Your task to perform on an android device: install app "Booking.com: Hotels and more" Image 0: 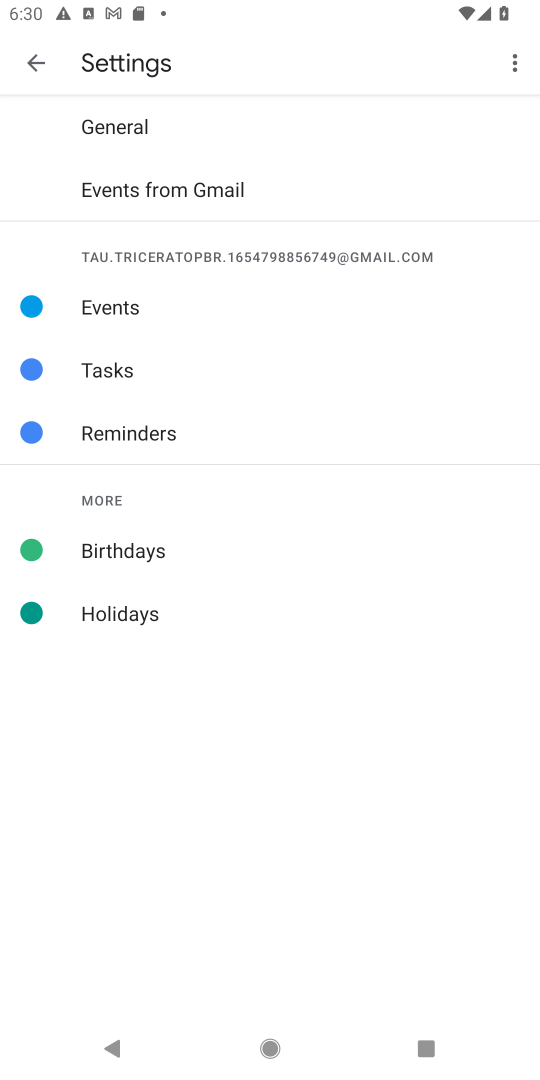
Step 0: press home button
Your task to perform on an android device: install app "Booking.com: Hotels and more" Image 1: 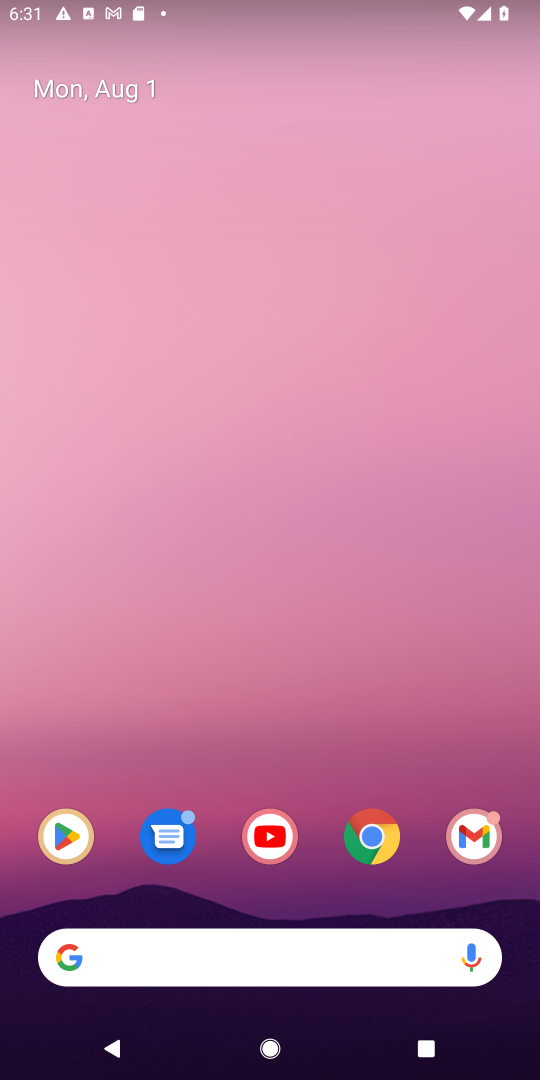
Step 1: click (66, 829)
Your task to perform on an android device: install app "Booking.com: Hotels and more" Image 2: 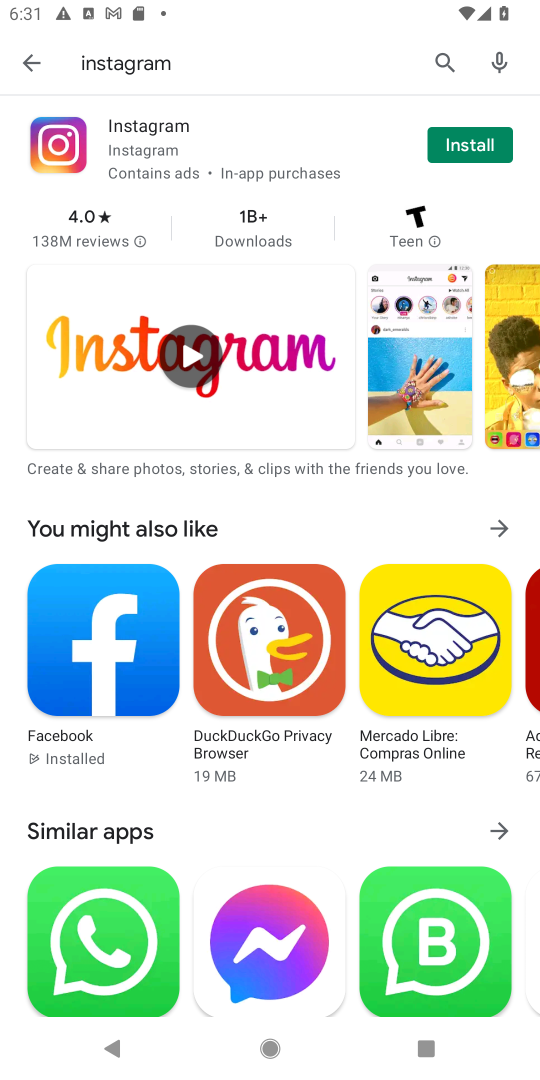
Step 2: click (441, 46)
Your task to perform on an android device: install app "Booking.com: Hotels and more" Image 3: 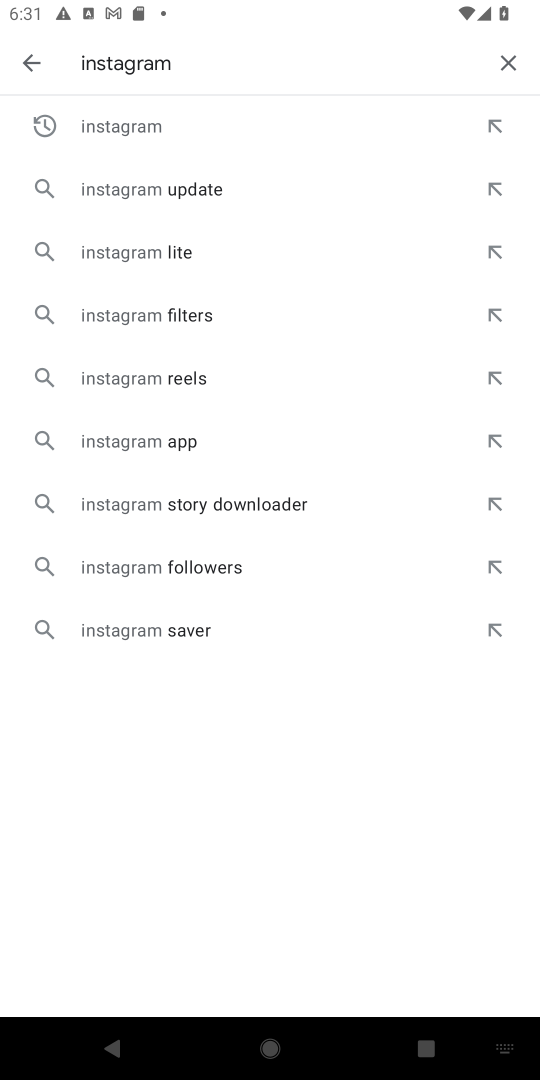
Step 3: click (511, 65)
Your task to perform on an android device: install app "Booking.com: Hotels and more" Image 4: 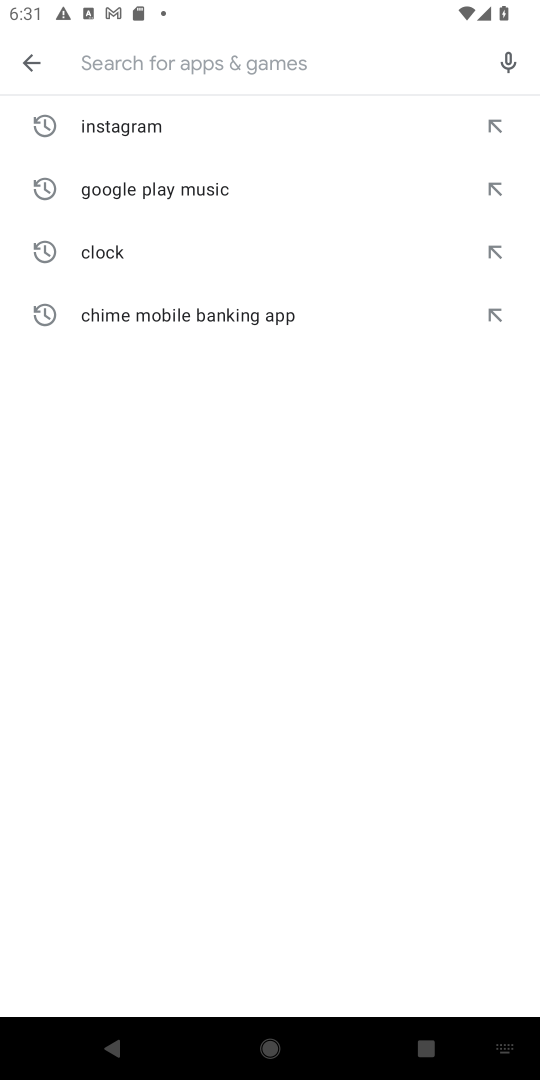
Step 4: type "Booking.com: Hotels and more"
Your task to perform on an android device: install app "Booking.com: Hotels and more" Image 5: 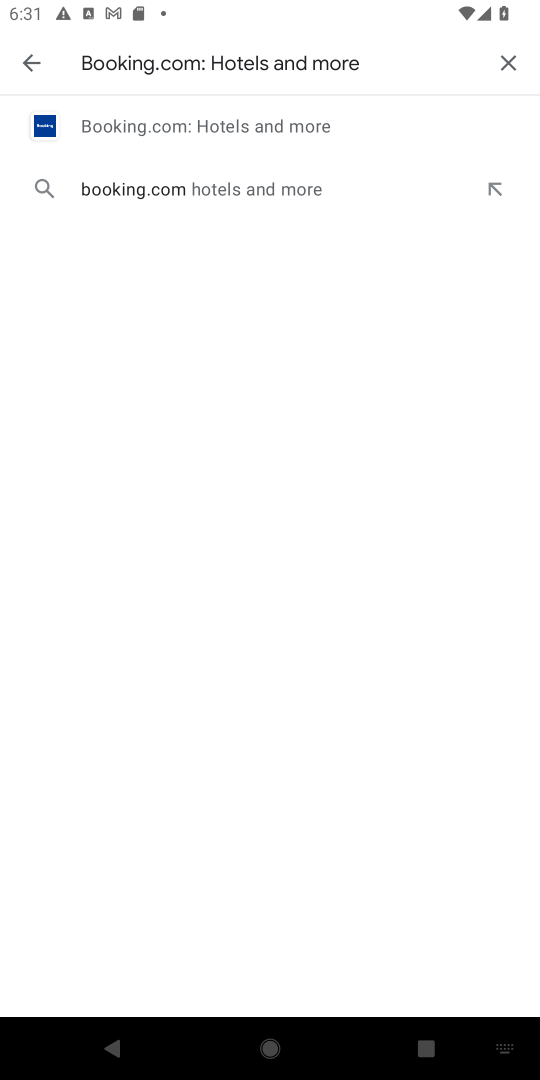
Step 5: click (144, 120)
Your task to perform on an android device: install app "Booking.com: Hotels and more" Image 6: 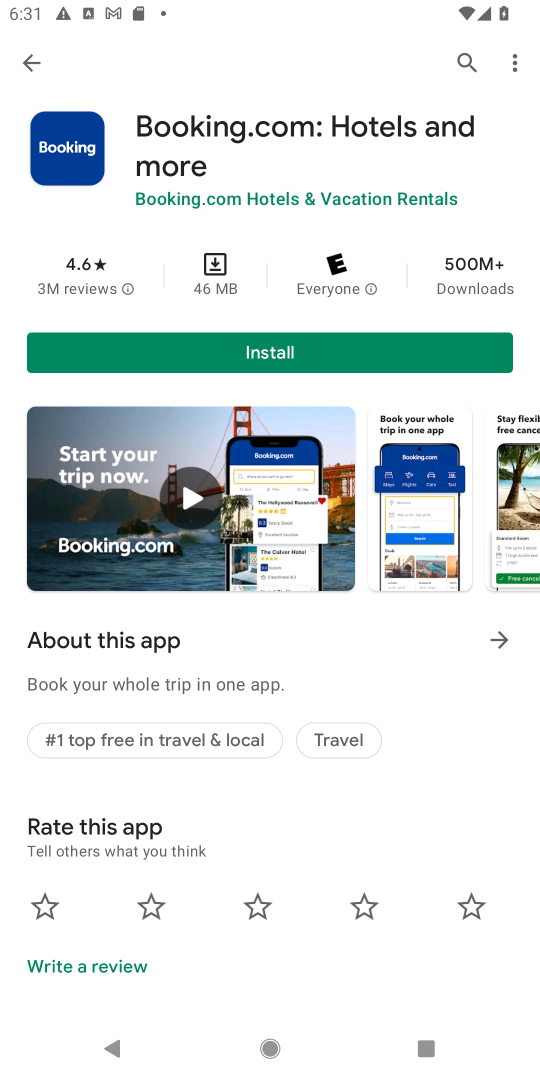
Step 6: click (308, 349)
Your task to perform on an android device: install app "Booking.com: Hotels and more" Image 7: 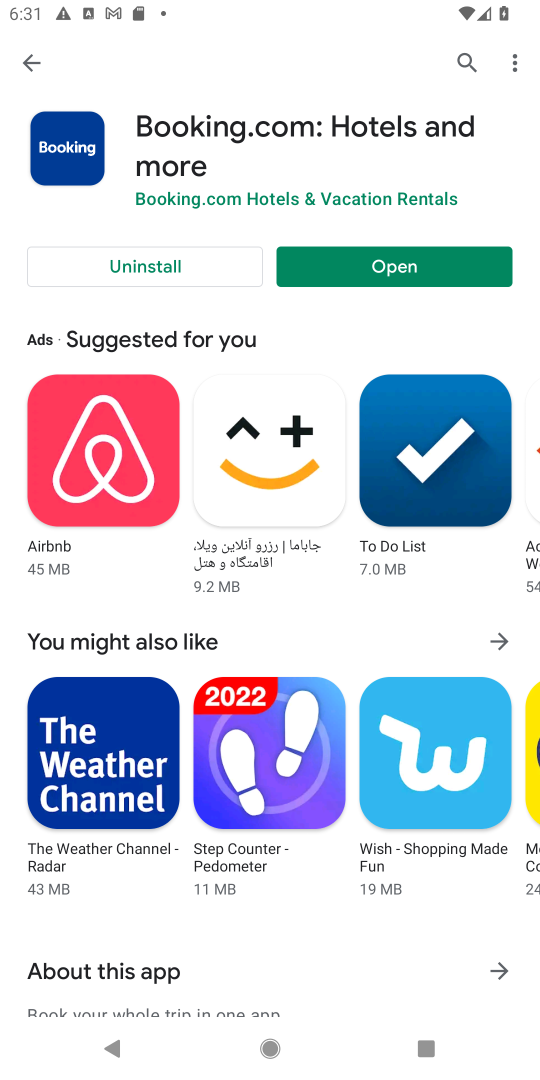
Step 7: task complete